Your task to perform on an android device: toggle wifi Image 0: 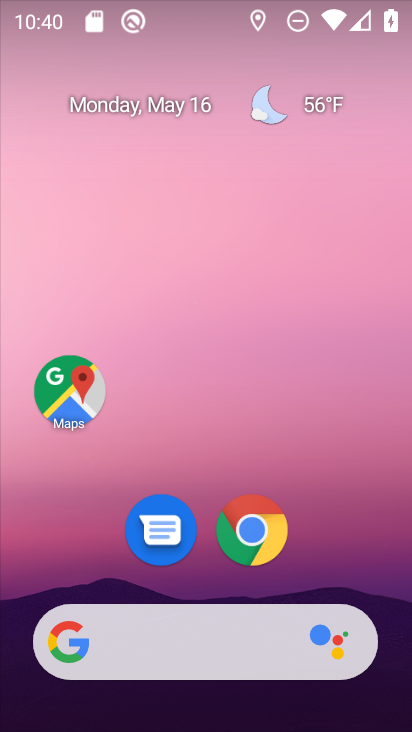
Step 0: drag from (200, 626) to (218, 24)
Your task to perform on an android device: toggle wifi Image 1: 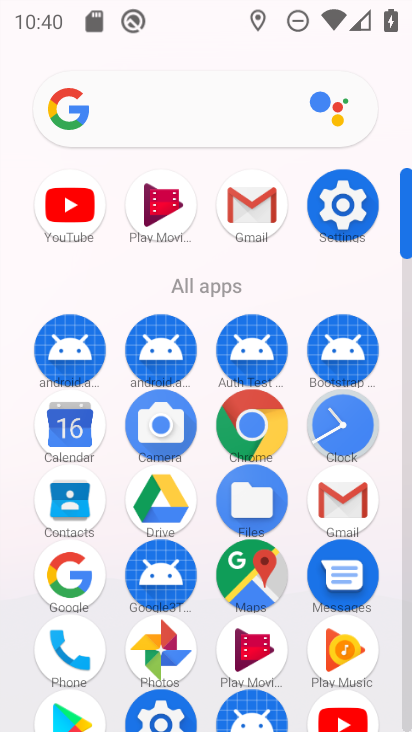
Step 1: click (338, 212)
Your task to perform on an android device: toggle wifi Image 2: 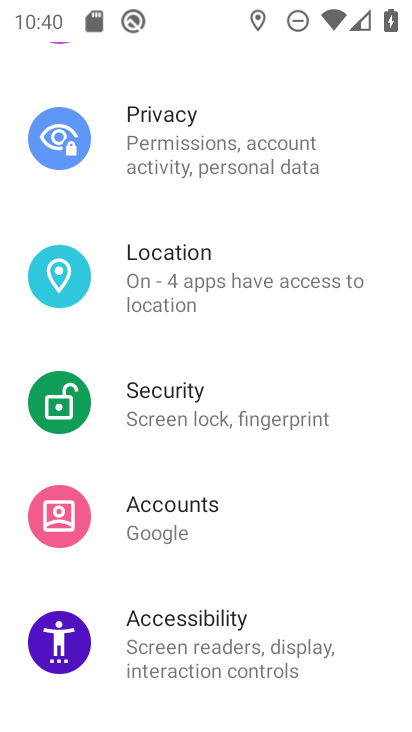
Step 2: drag from (278, 157) to (278, 582)
Your task to perform on an android device: toggle wifi Image 3: 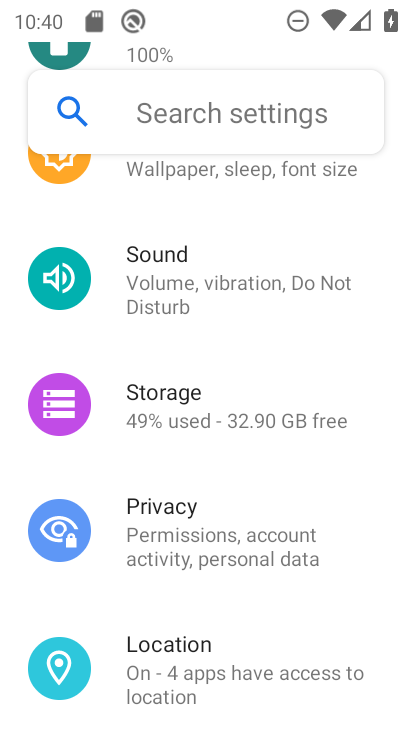
Step 3: drag from (191, 223) to (189, 721)
Your task to perform on an android device: toggle wifi Image 4: 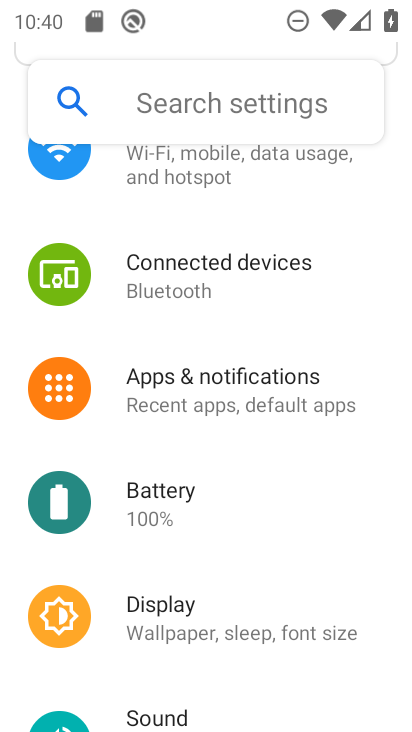
Step 4: click (169, 178)
Your task to perform on an android device: toggle wifi Image 5: 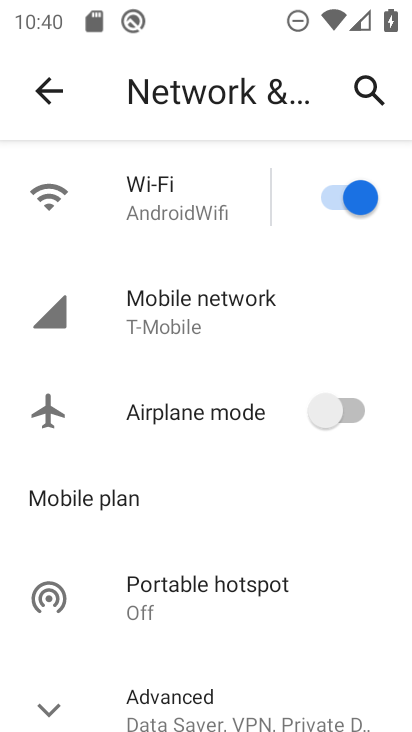
Step 5: click (342, 196)
Your task to perform on an android device: toggle wifi Image 6: 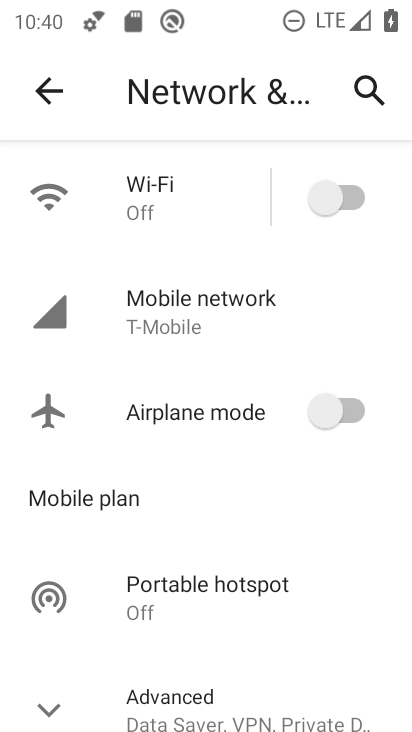
Step 6: task complete